Your task to perform on an android device: open device folders in google photos Image 0: 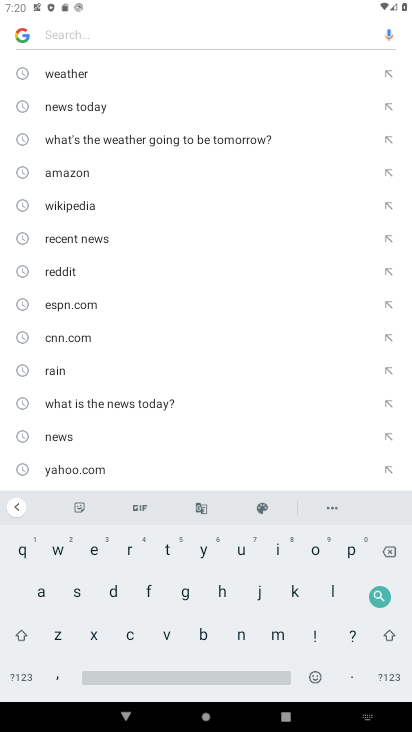
Step 0: press home button
Your task to perform on an android device: open device folders in google photos Image 1: 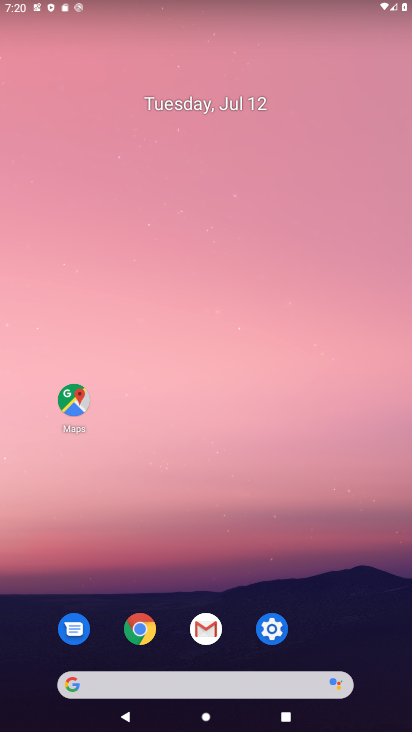
Step 1: drag from (236, 704) to (237, 155)
Your task to perform on an android device: open device folders in google photos Image 2: 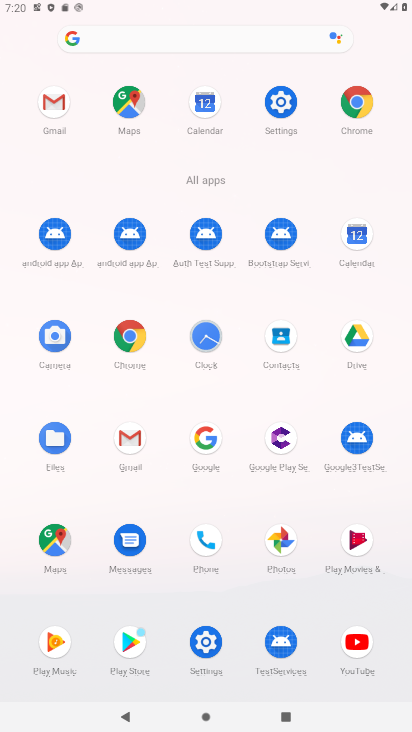
Step 2: click (294, 550)
Your task to perform on an android device: open device folders in google photos Image 3: 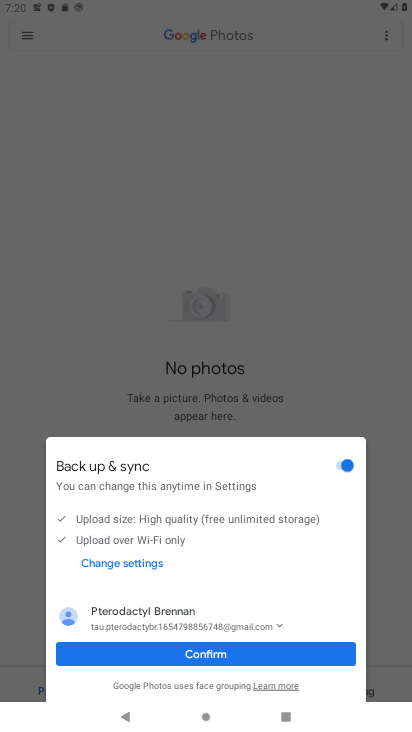
Step 3: click (200, 652)
Your task to perform on an android device: open device folders in google photos Image 4: 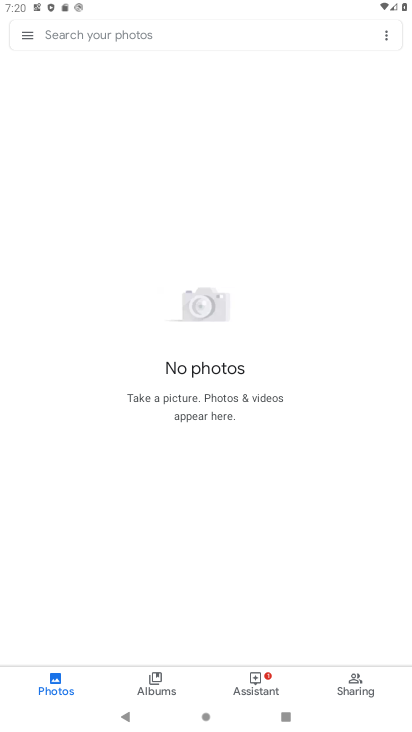
Step 4: click (27, 36)
Your task to perform on an android device: open device folders in google photos Image 5: 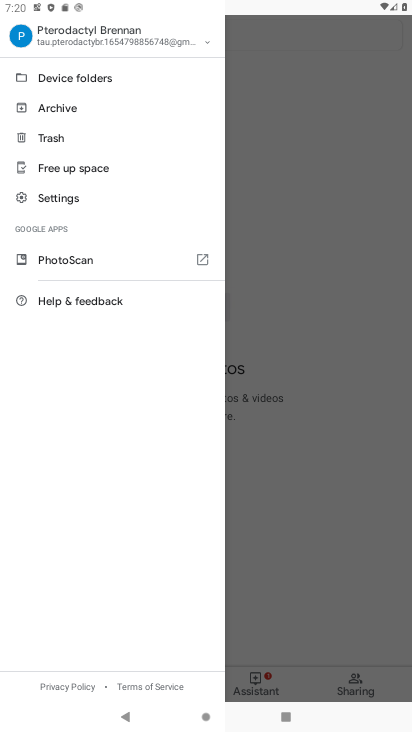
Step 5: click (86, 82)
Your task to perform on an android device: open device folders in google photos Image 6: 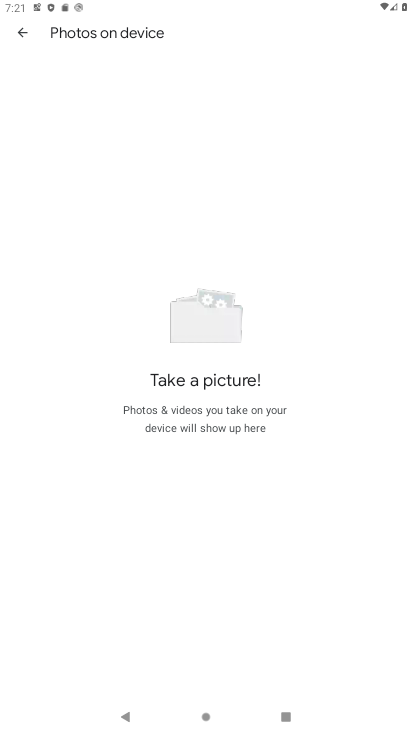
Step 6: task complete